Your task to perform on an android device: check the backup settings in the google photos Image 0: 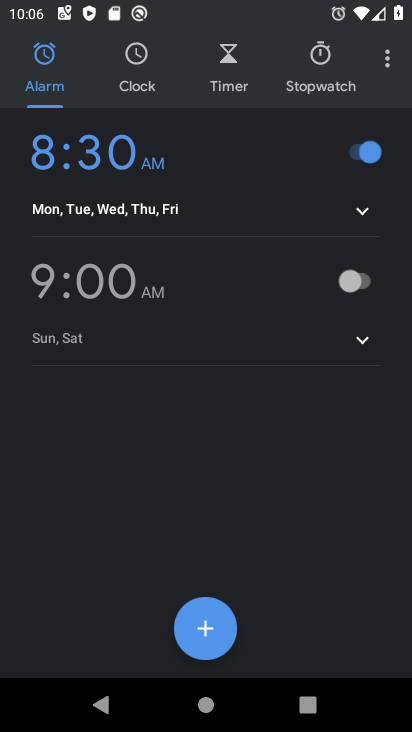
Step 0: press home button
Your task to perform on an android device: check the backup settings in the google photos Image 1: 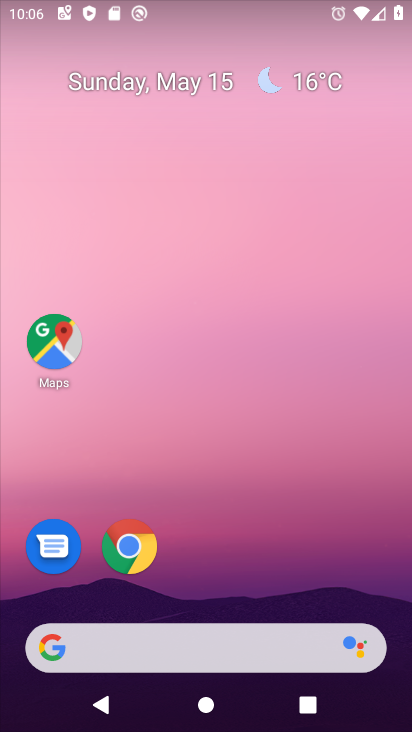
Step 1: drag from (285, 506) to (231, 166)
Your task to perform on an android device: check the backup settings in the google photos Image 2: 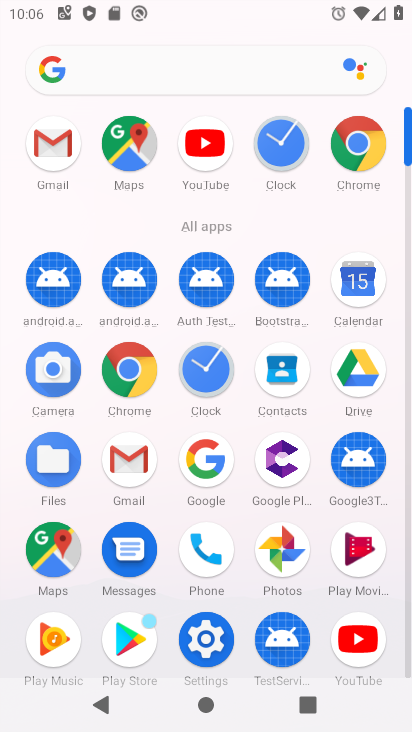
Step 2: click (287, 549)
Your task to perform on an android device: check the backup settings in the google photos Image 3: 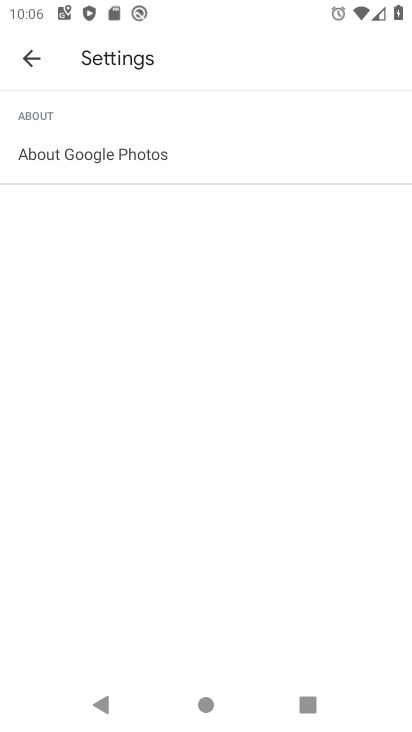
Step 3: click (30, 54)
Your task to perform on an android device: check the backup settings in the google photos Image 4: 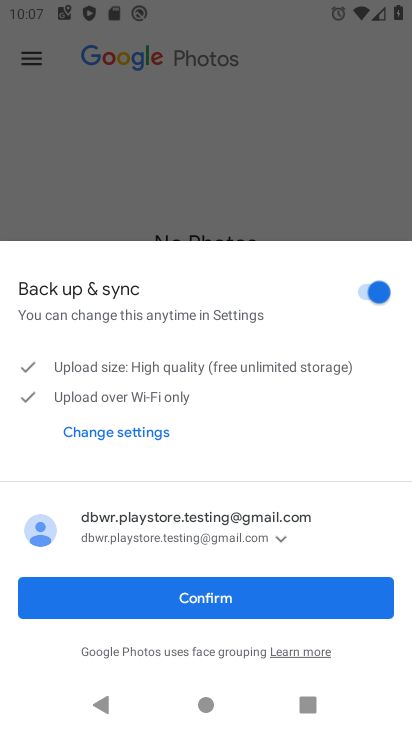
Step 4: click (222, 598)
Your task to perform on an android device: check the backup settings in the google photos Image 5: 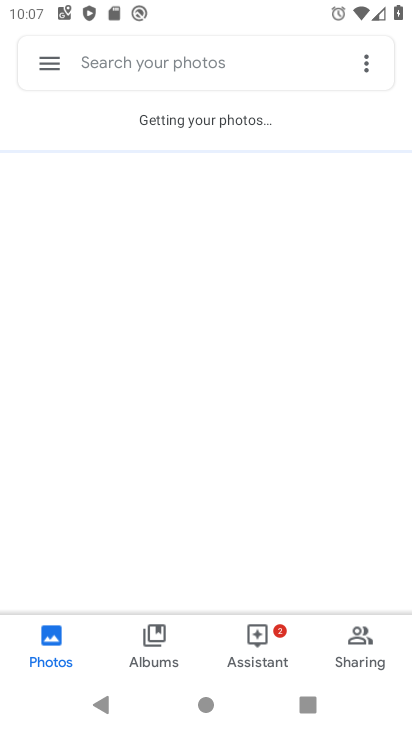
Step 5: task complete